Your task to perform on an android device: turn on translation in the chrome app Image 0: 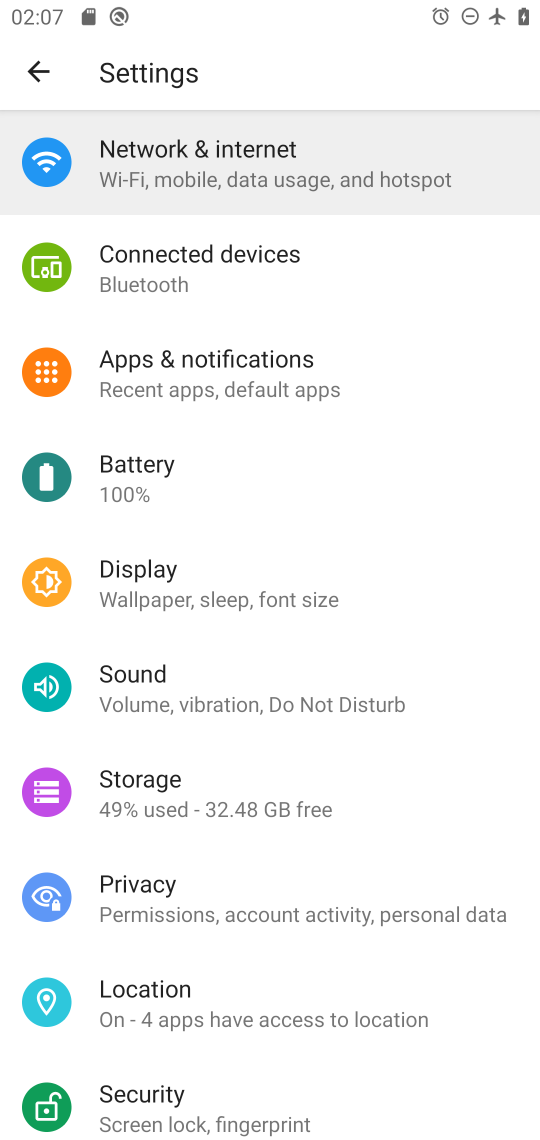
Step 0: press home button
Your task to perform on an android device: turn on translation in the chrome app Image 1: 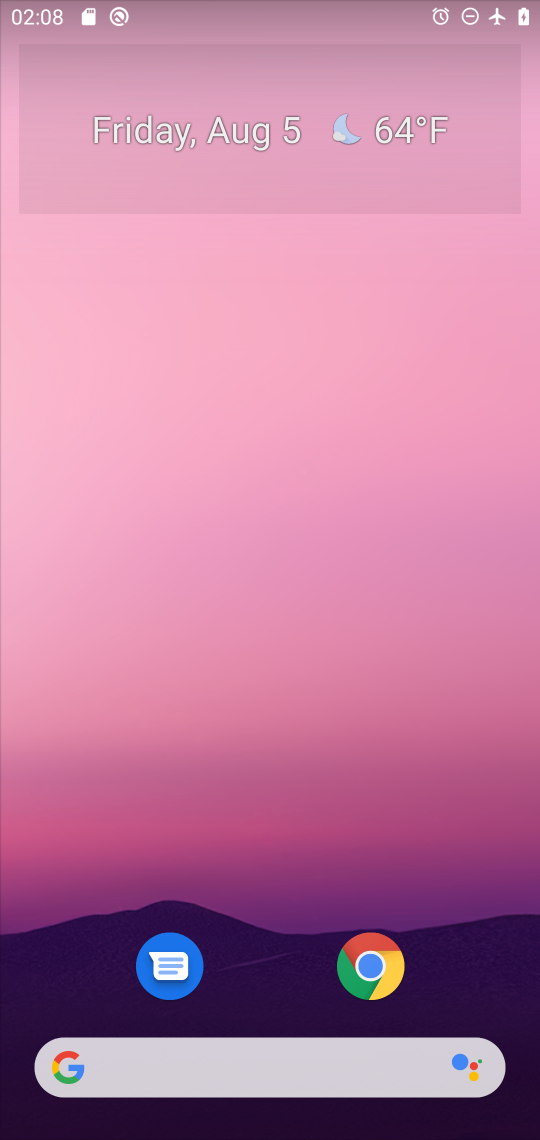
Step 1: drag from (333, 815) to (422, 118)
Your task to perform on an android device: turn on translation in the chrome app Image 2: 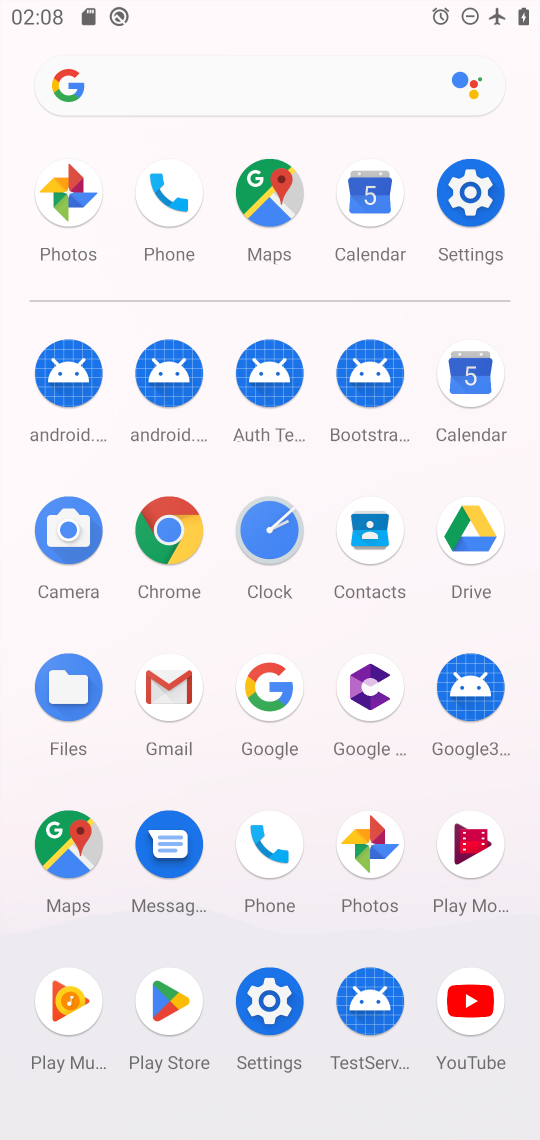
Step 2: click (174, 530)
Your task to perform on an android device: turn on translation in the chrome app Image 3: 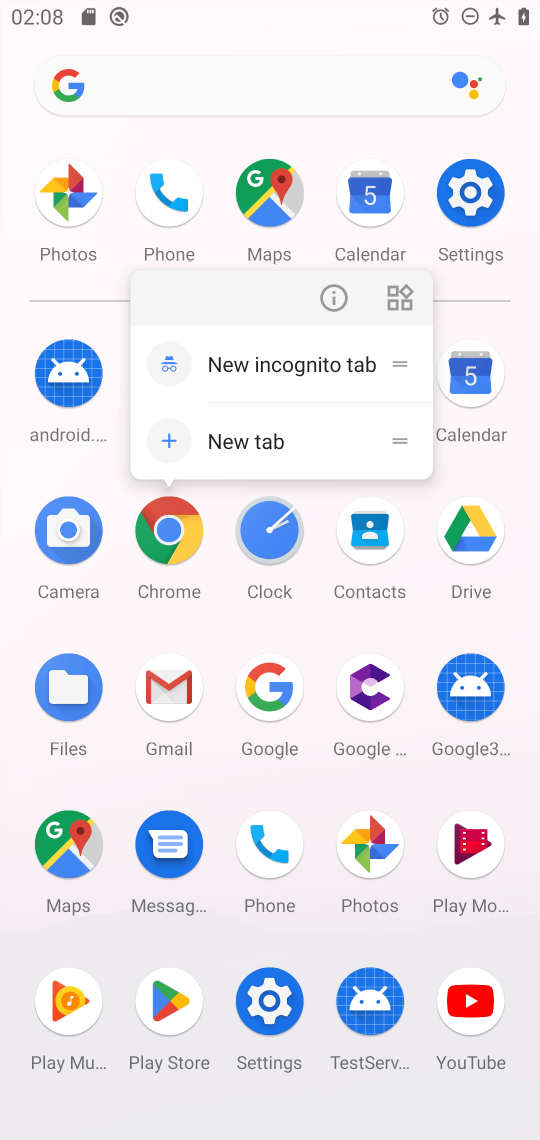
Step 3: click (174, 530)
Your task to perform on an android device: turn on translation in the chrome app Image 4: 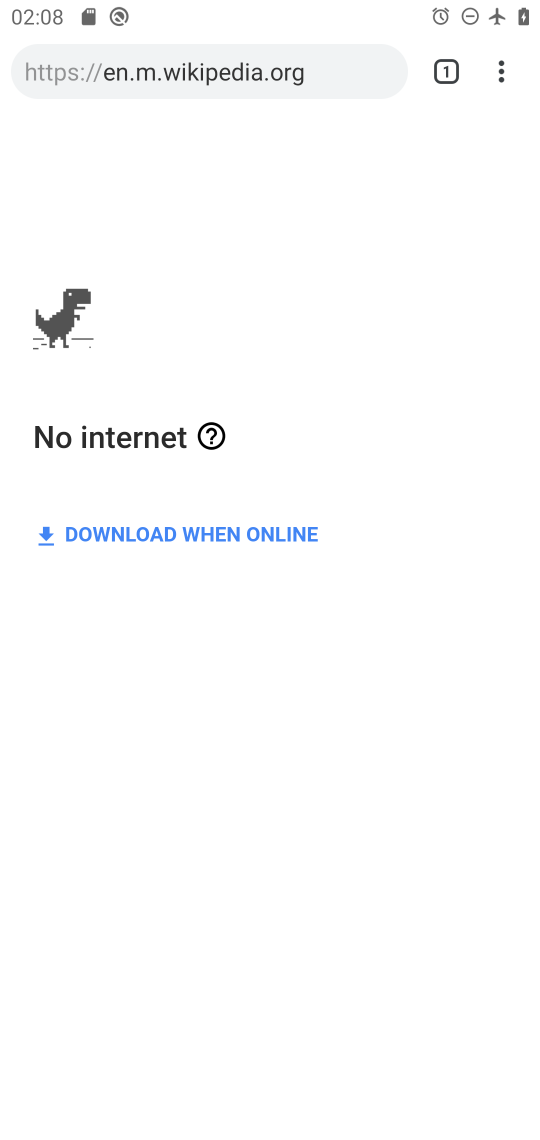
Step 4: click (502, 55)
Your task to perform on an android device: turn on translation in the chrome app Image 5: 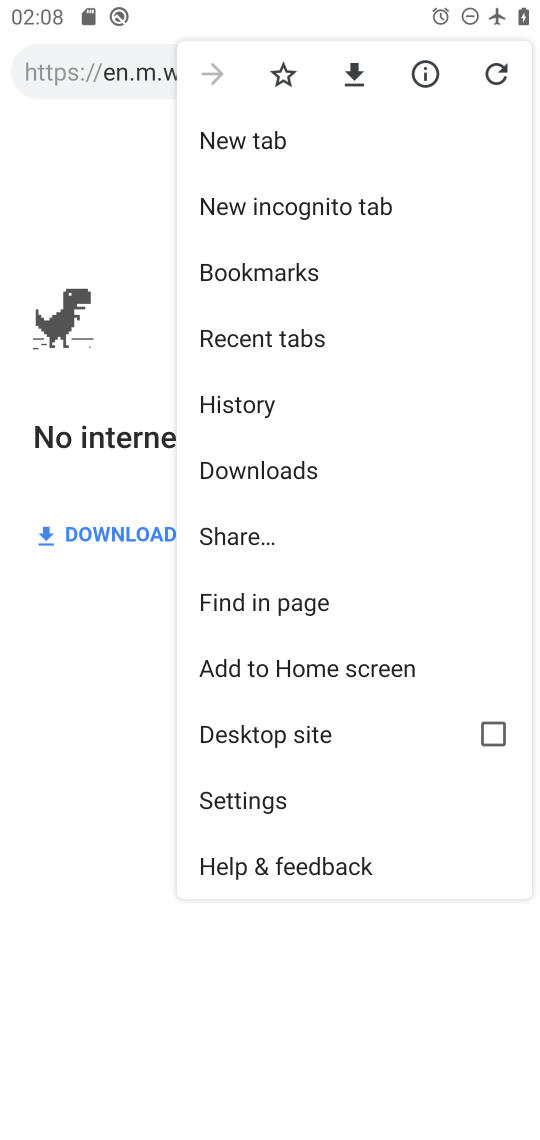
Step 5: click (289, 802)
Your task to perform on an android device: turn on translation in the chrome app Image 6: 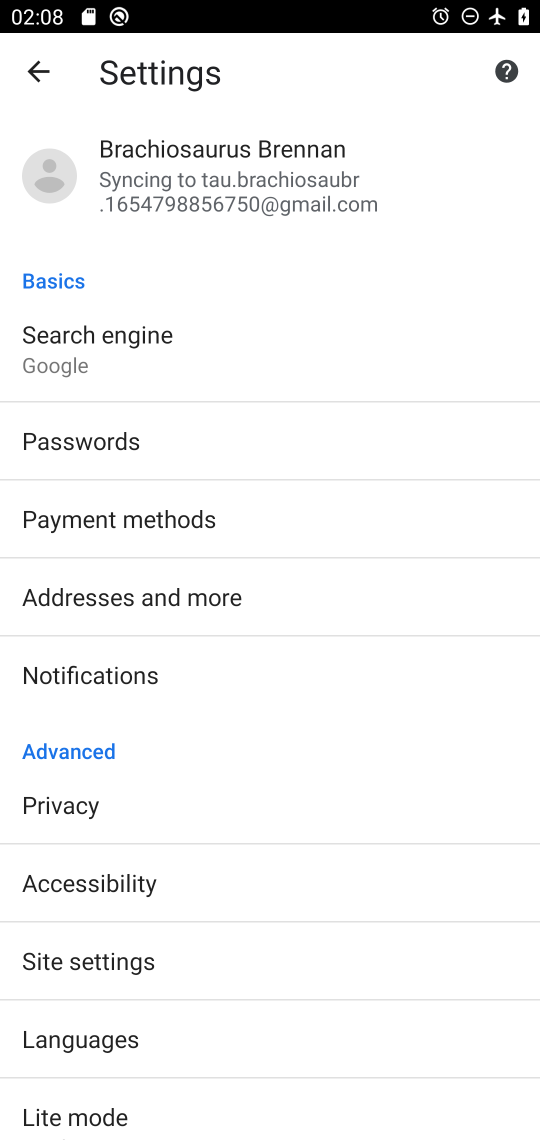
Step 6: click (234, 1039)
Your task to perform on an android device: turn on translation in the chrome app Image 7: 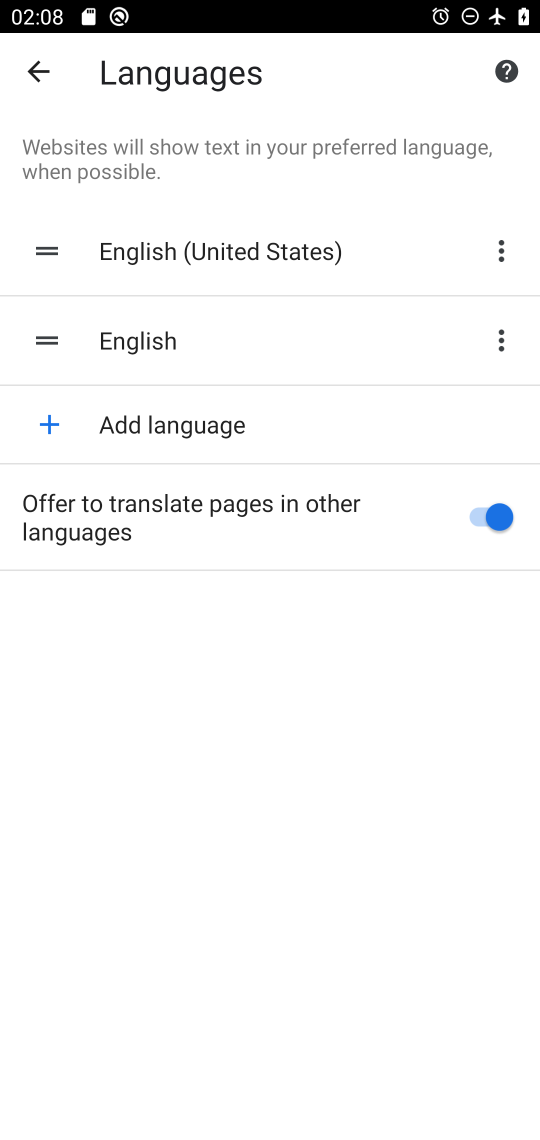
Step 7: task complete